Your task to perform on an android device: Open eBay Image 0: 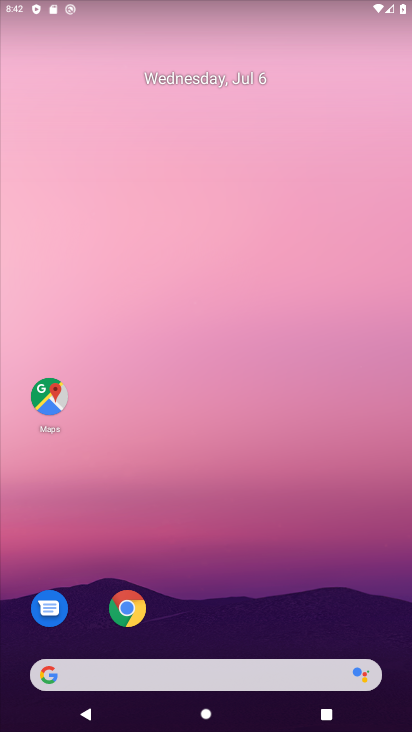
Step 0: drag from (227, 622) to (195, 77)
Your task to perform on an android device: Open eBay Image 1: 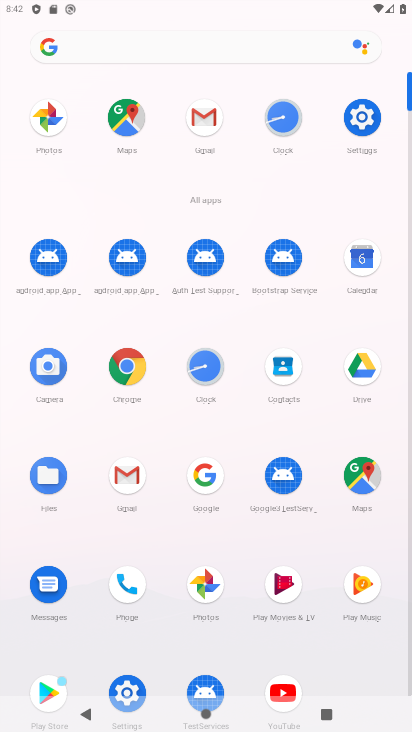
Step 1: click (136, 371)
Your task to perform on an android device: Open eBay Image 2: 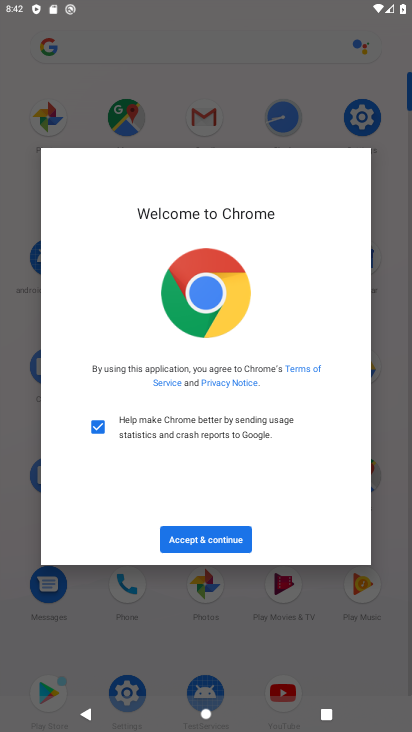
Step 2: click (232, 542)
Your task to perform on an android device: Open eBay Image 3: 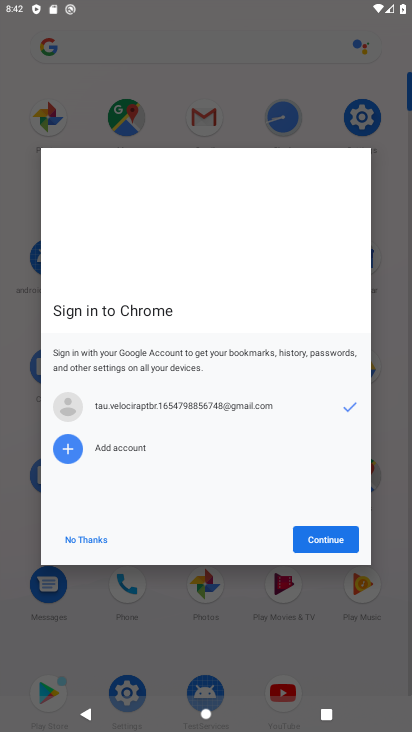
Step 3: click (323, 544)
Your task to perform on an android device: Open eBay Image 4: 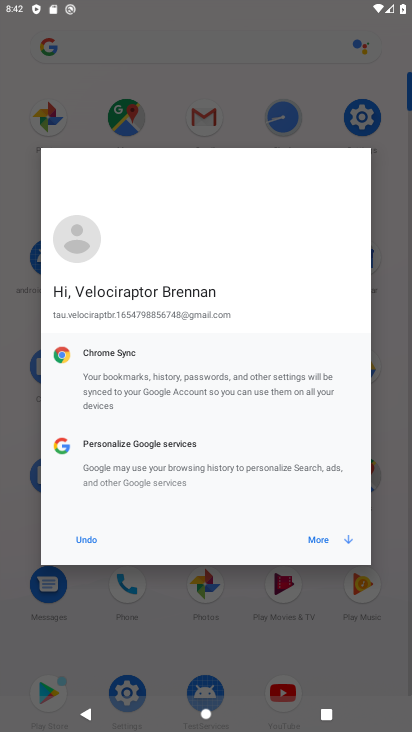
Step 4: click (321, 538)
Your task to perform on an android device: Open eBay Image 5: 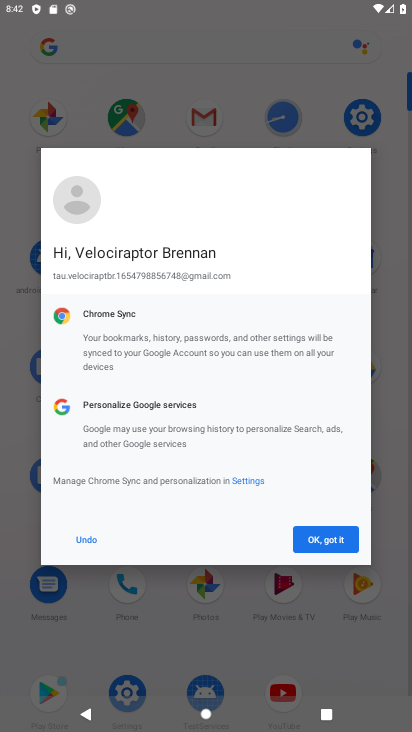
Step 5: click (323, 538)
Your task to perform on an android device: Open eBay Image 6: 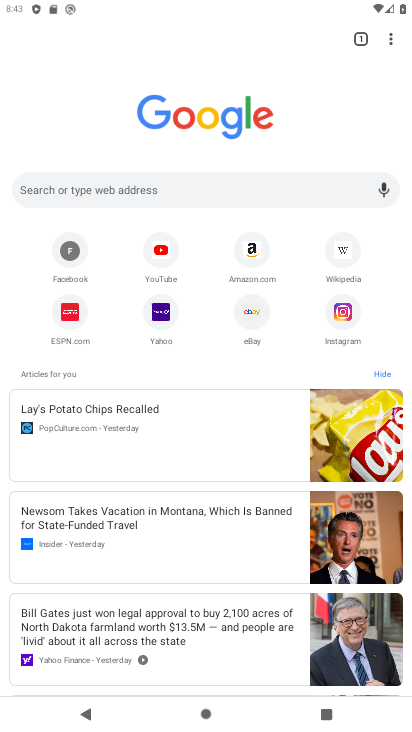
Step 6: click (257, 315)
Your task to perform on an android device: Open eBay Image 7: 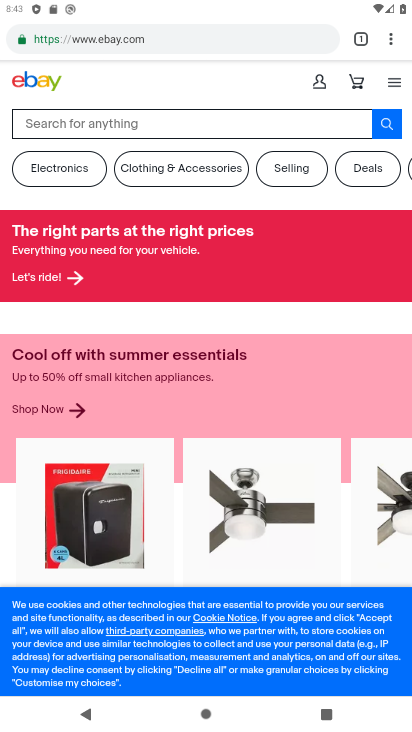
Step 7: task complete